Your task to perform on an android device: toggle javascript in the chrome app Image 0: 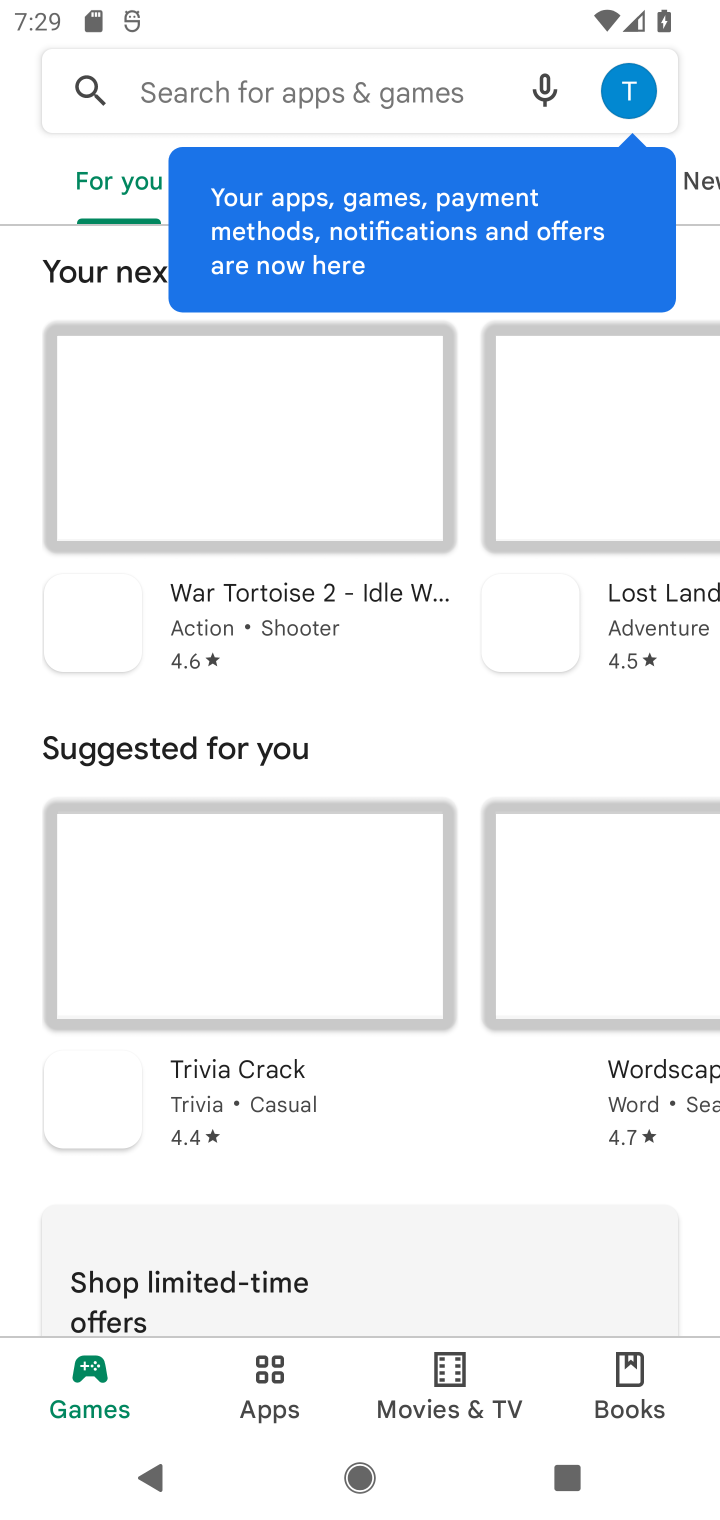
Step 0: press home button
Your task to perform on an android device: toggle javascript in the chrome app Image 1: 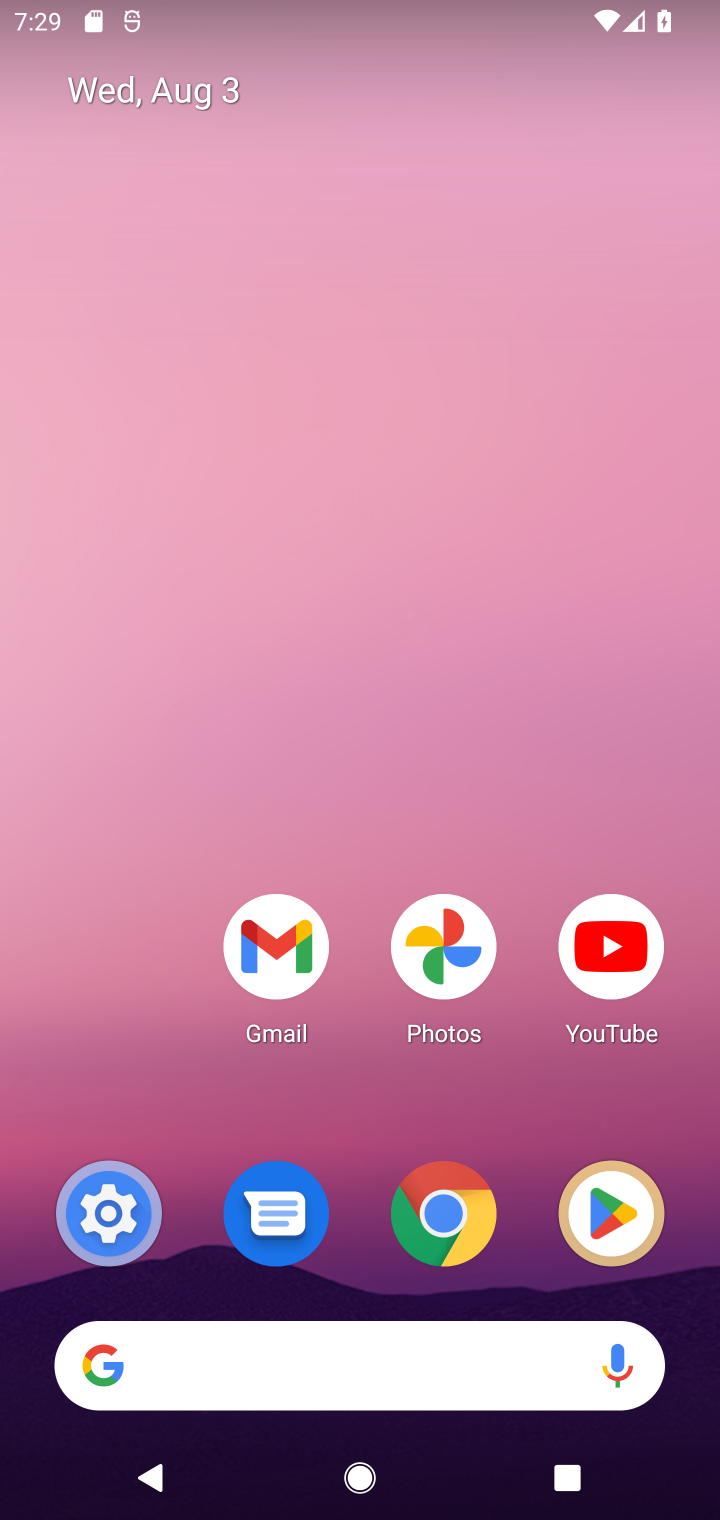
Step 1: click (450, 1197)
Your task to perform on an android device: toggle javascript in the chrome app Image 2: 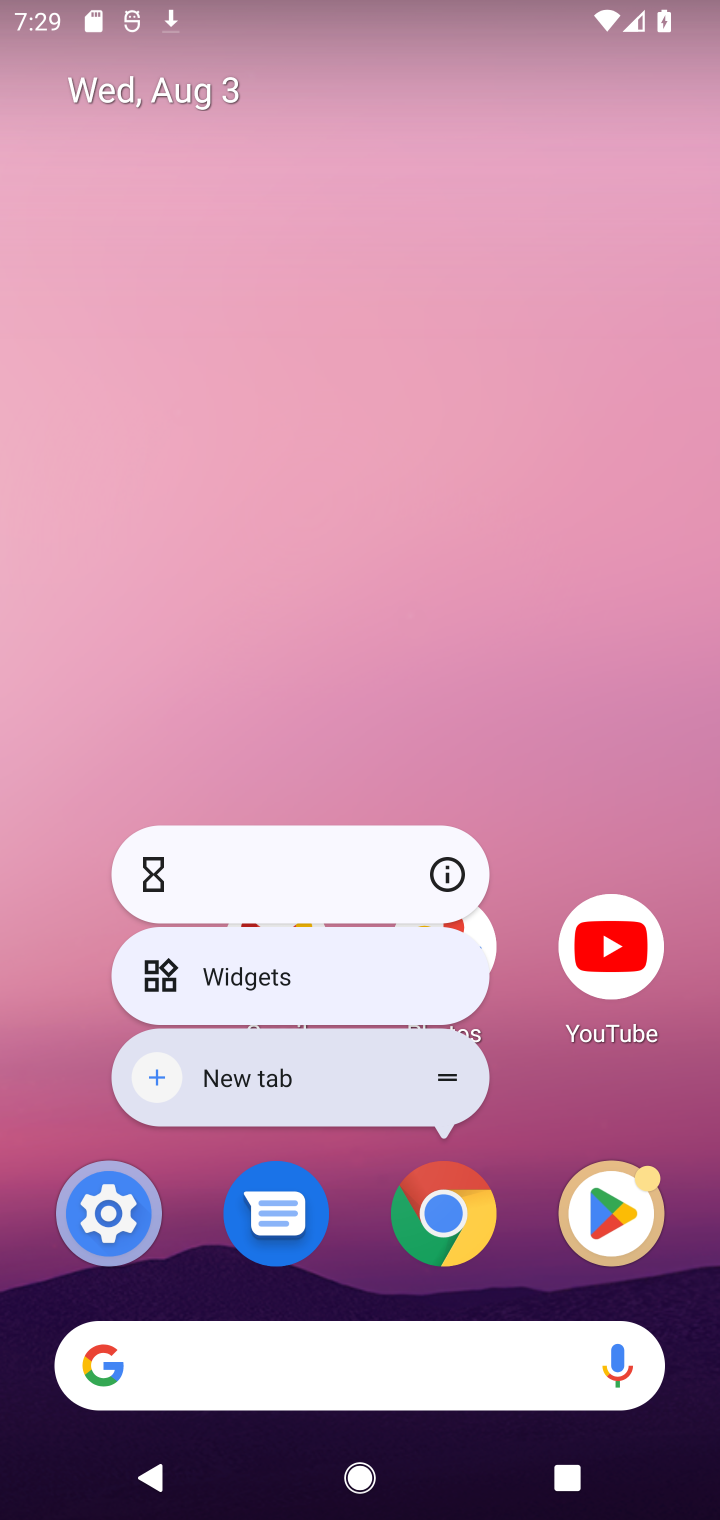
Step 2: click (450, 1197)
Your task to perform on an android device: toggle javascript in the chrome app Image 3: 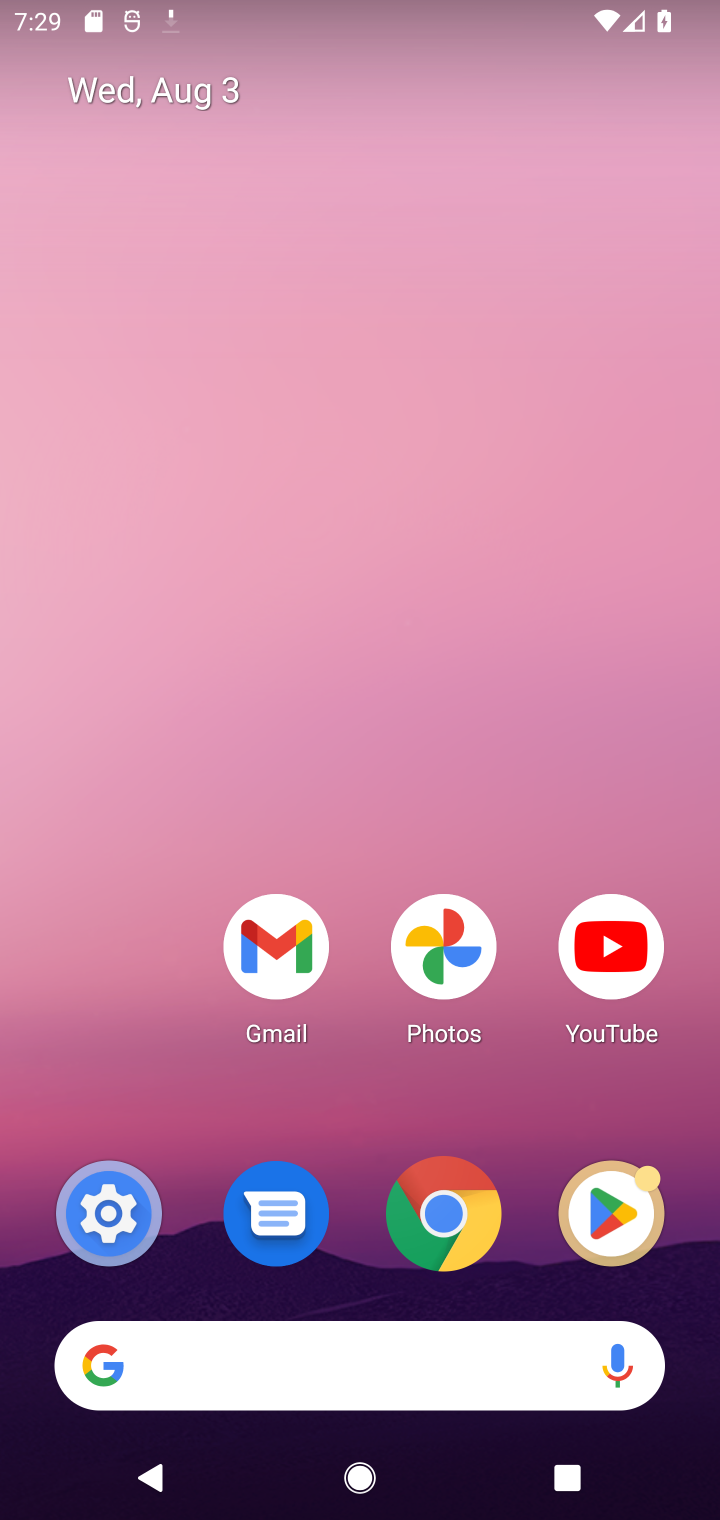
Step 3: click (450, 1197)
Your task to perform on an android device: toggle javascript in the chrome app Image 4: 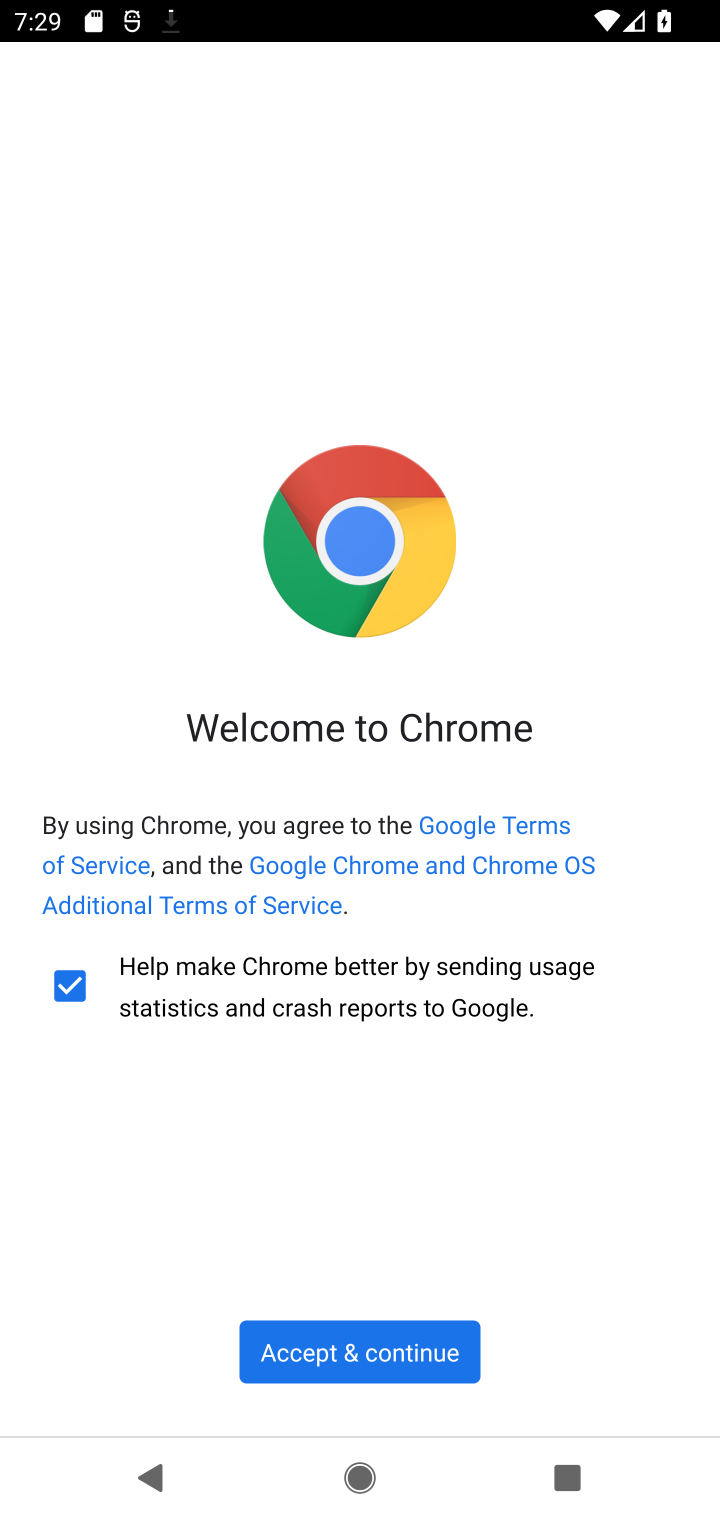
Step 4: click (403, 1343)
Your task to perform on an android device: toggle javascript in the chrome app Image 5: 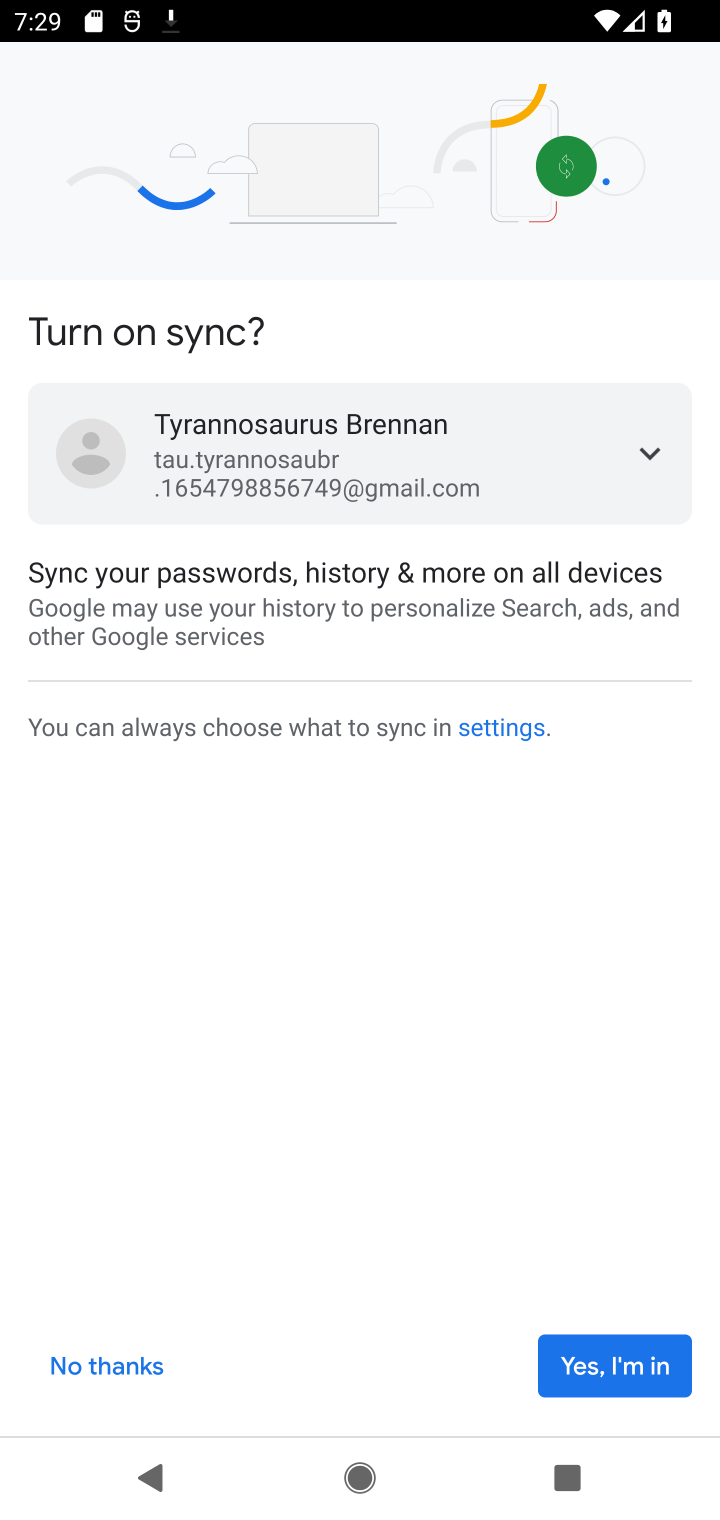
Step 5: click (605, 1367)
Your task to perform on an android device: toggle javascript in the chrome app Image 6: 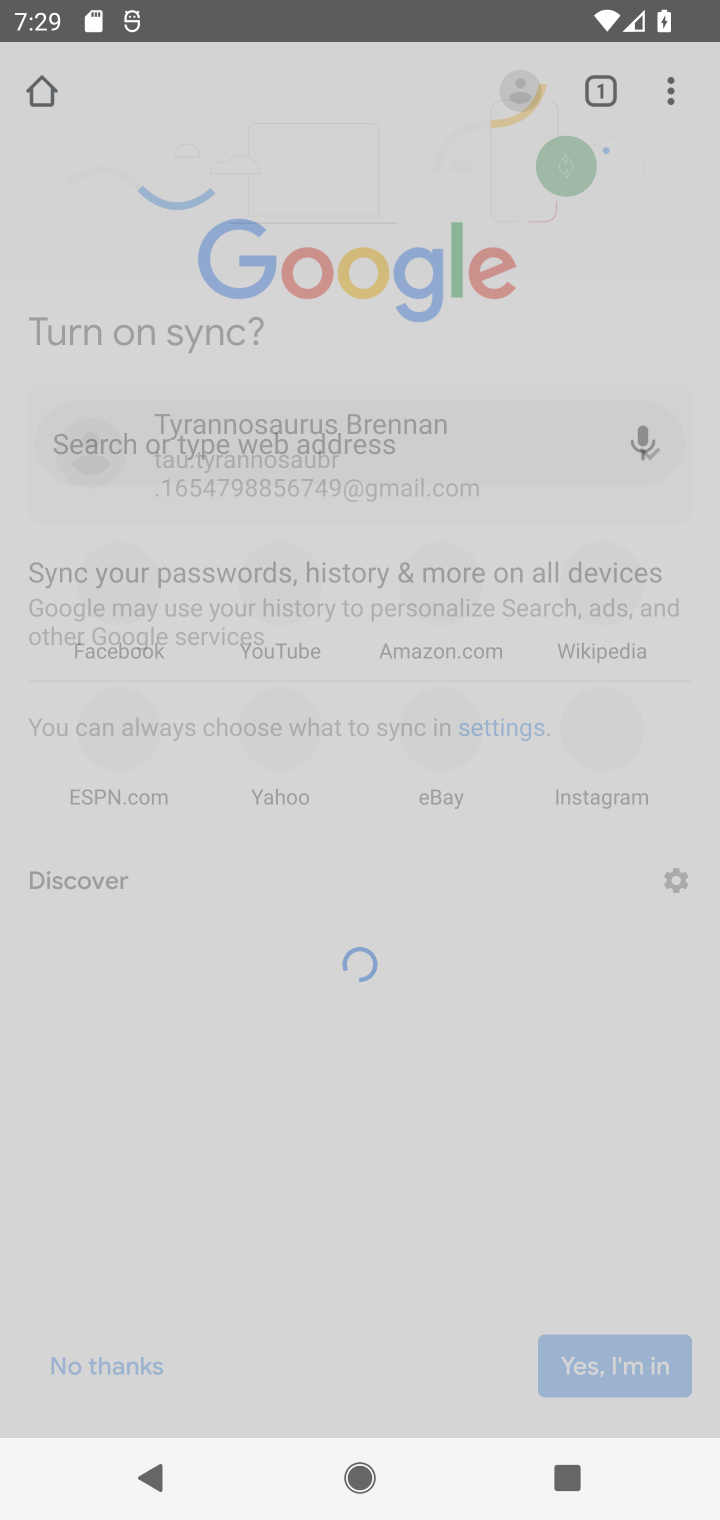
Step 6: click (623, 1372)
Your task to perform on an android device: toggle javascript in the chrome app Image 7: 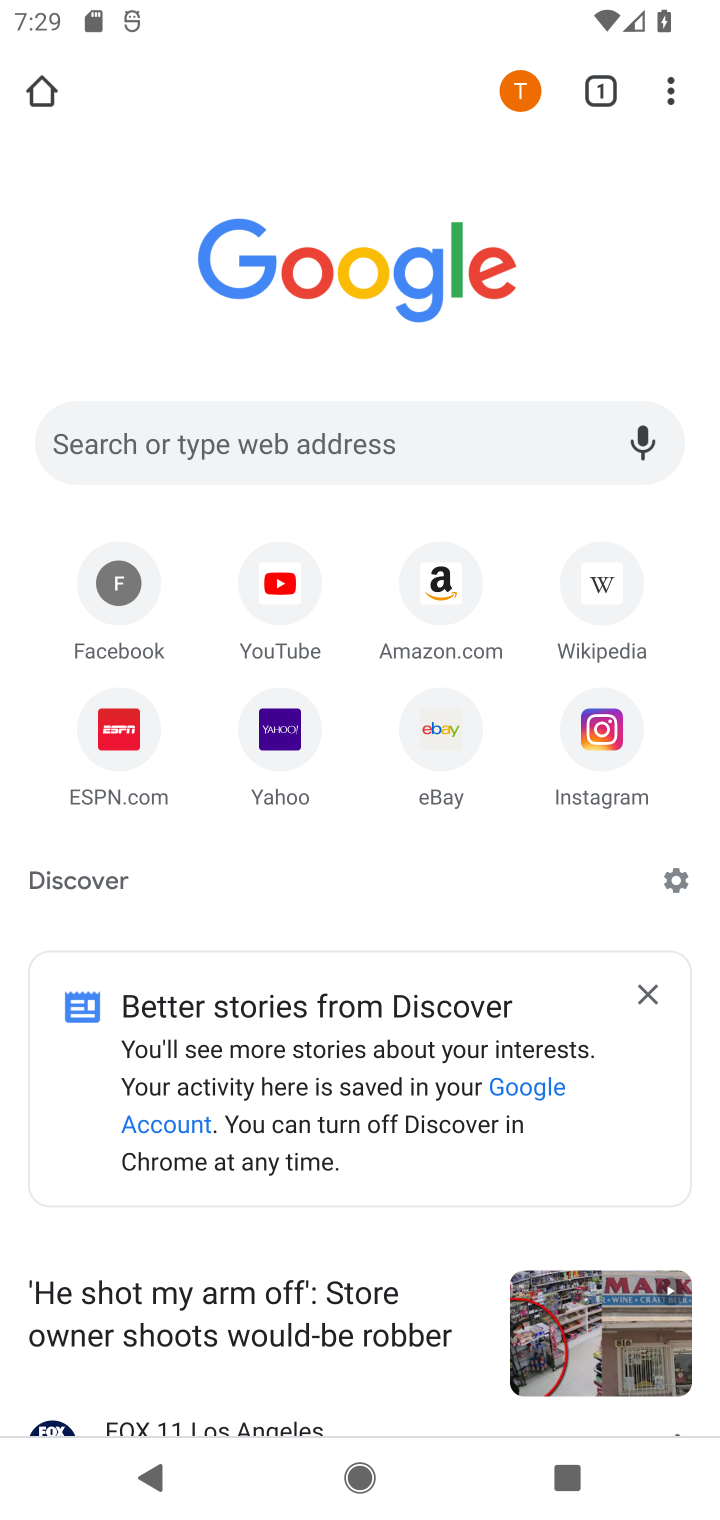
Step 7: drag from (662, 93) to (411, 823)
Your task to perform on an android device: toggle javascript in the chrome app Image 8: 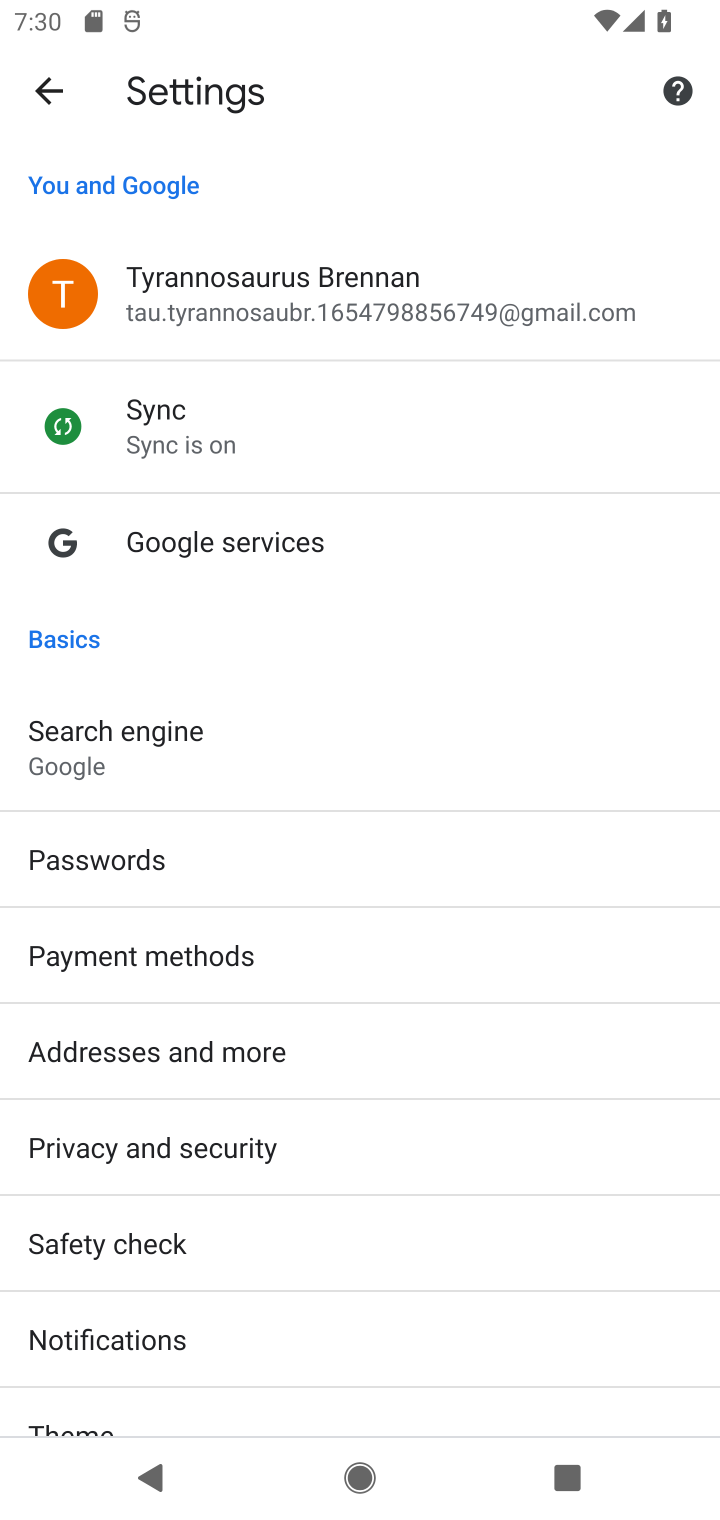
Step 8: drag from (244, 1325) to (566, 397)
Your task to perform on an android device: toggle javascript in the chrome app Image 9: 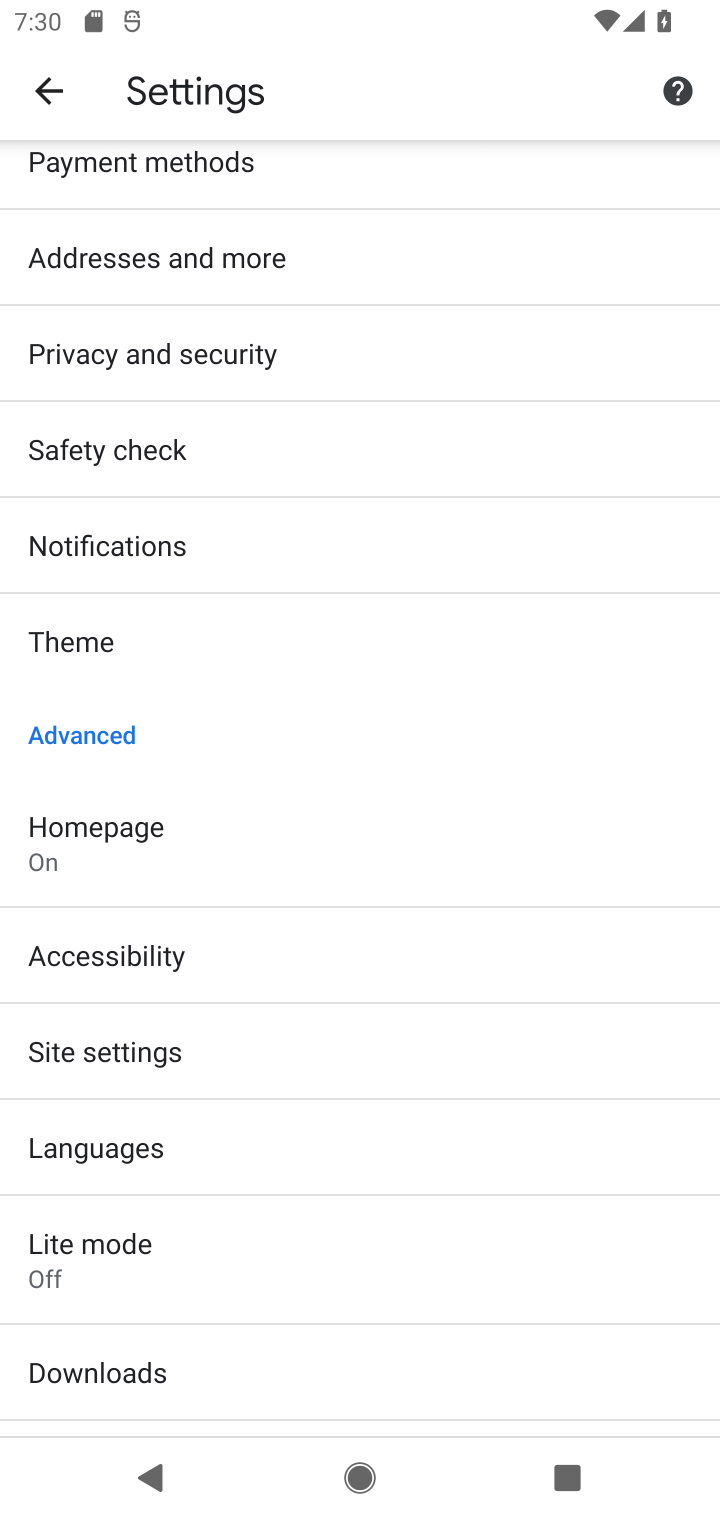
Step 9: click (133, 1063)
Your task to perform on an android device: toggle javascript in the chrome app Image 10: 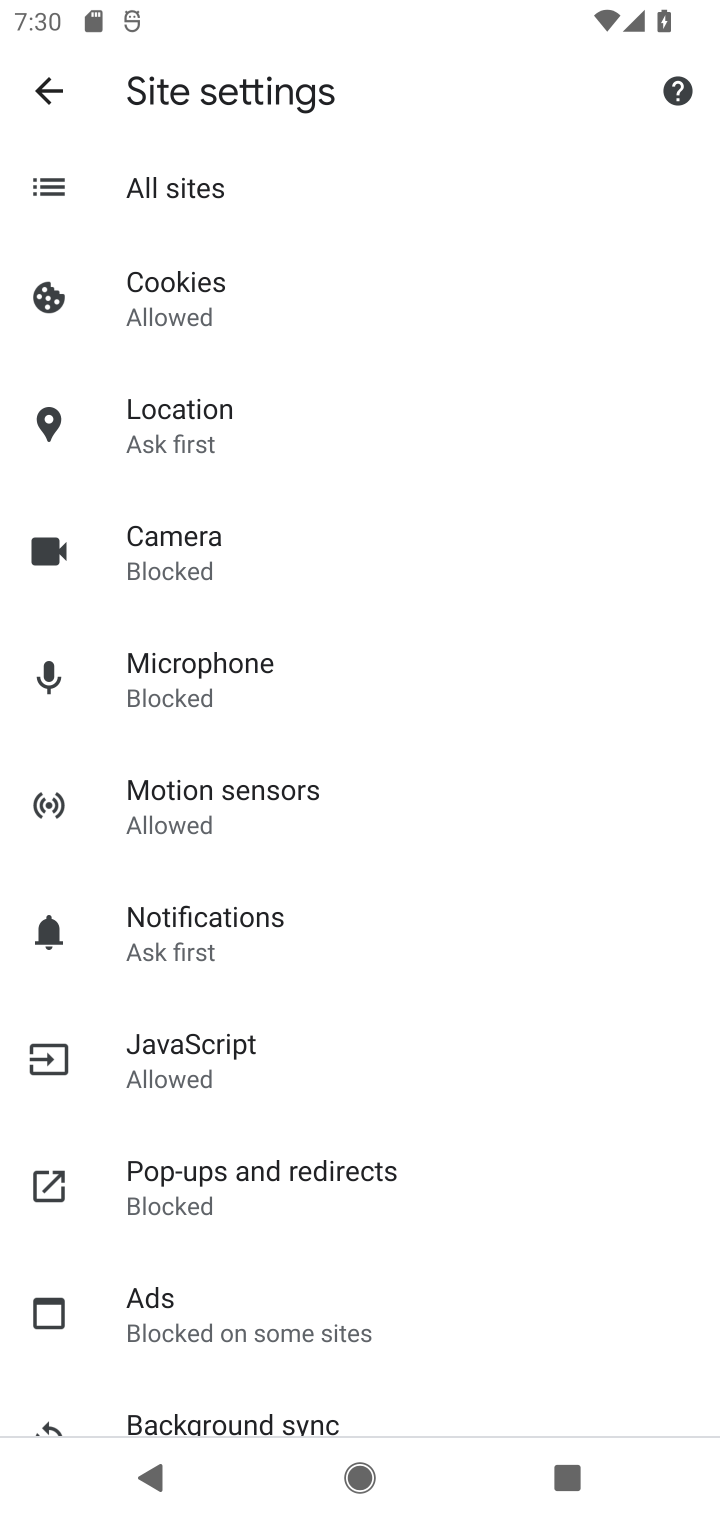
Step 10: click (197, 1057)
Your task to perform on an android device: toggle javascript in the chrome app Image 11: 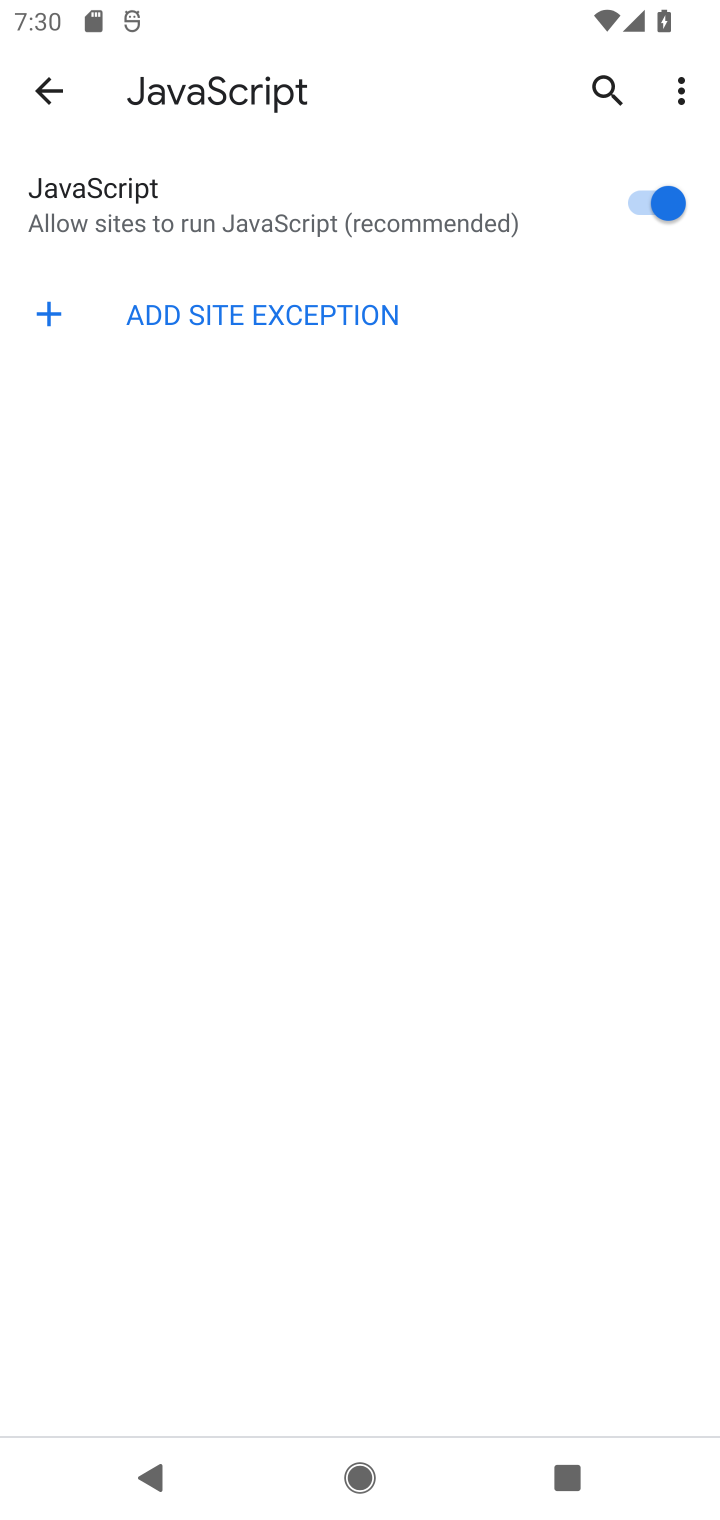
Step 11: click (645, 191)
Your task to perform on an android device: toggle javascript in the chrome app Image 12: 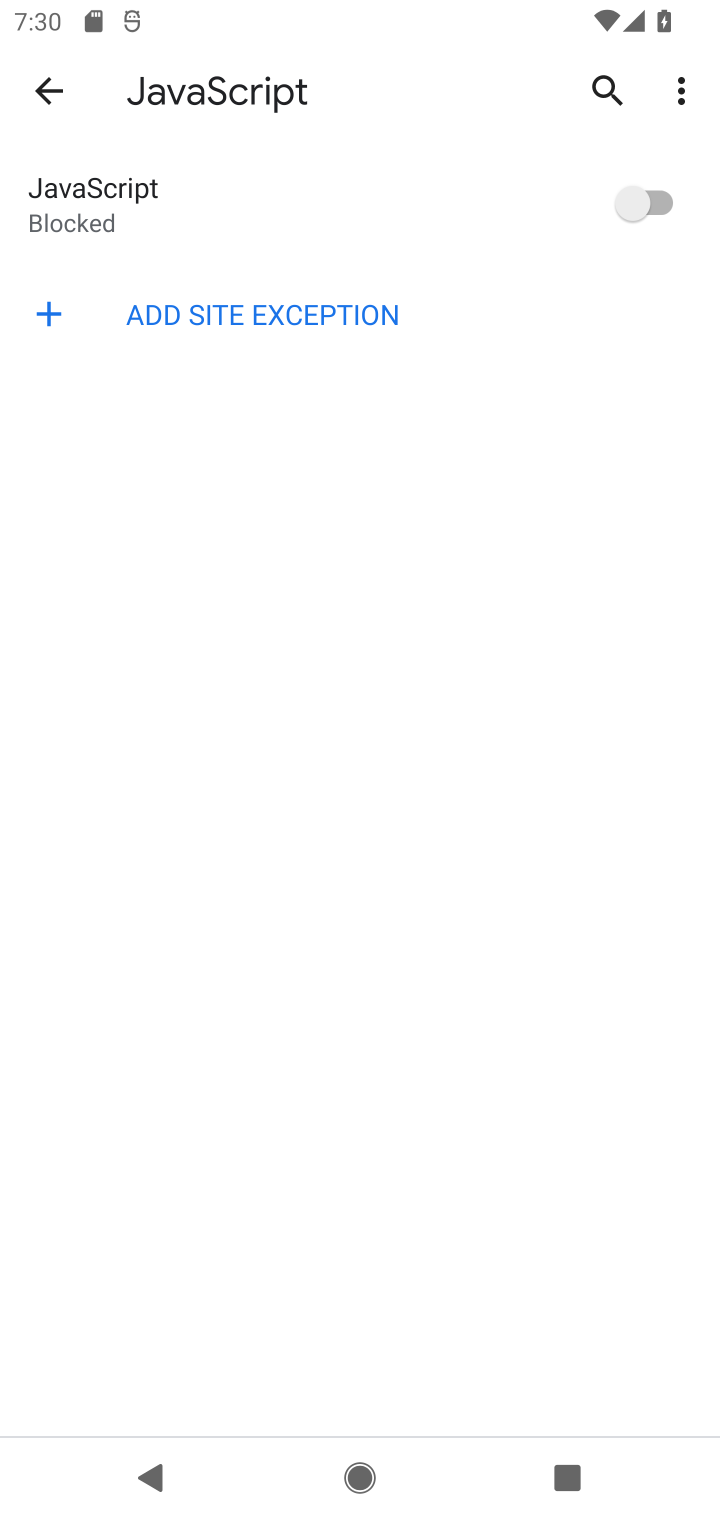
Step 12: task complete